Your task to perform on an android device: change the clock display to analog Image 0: 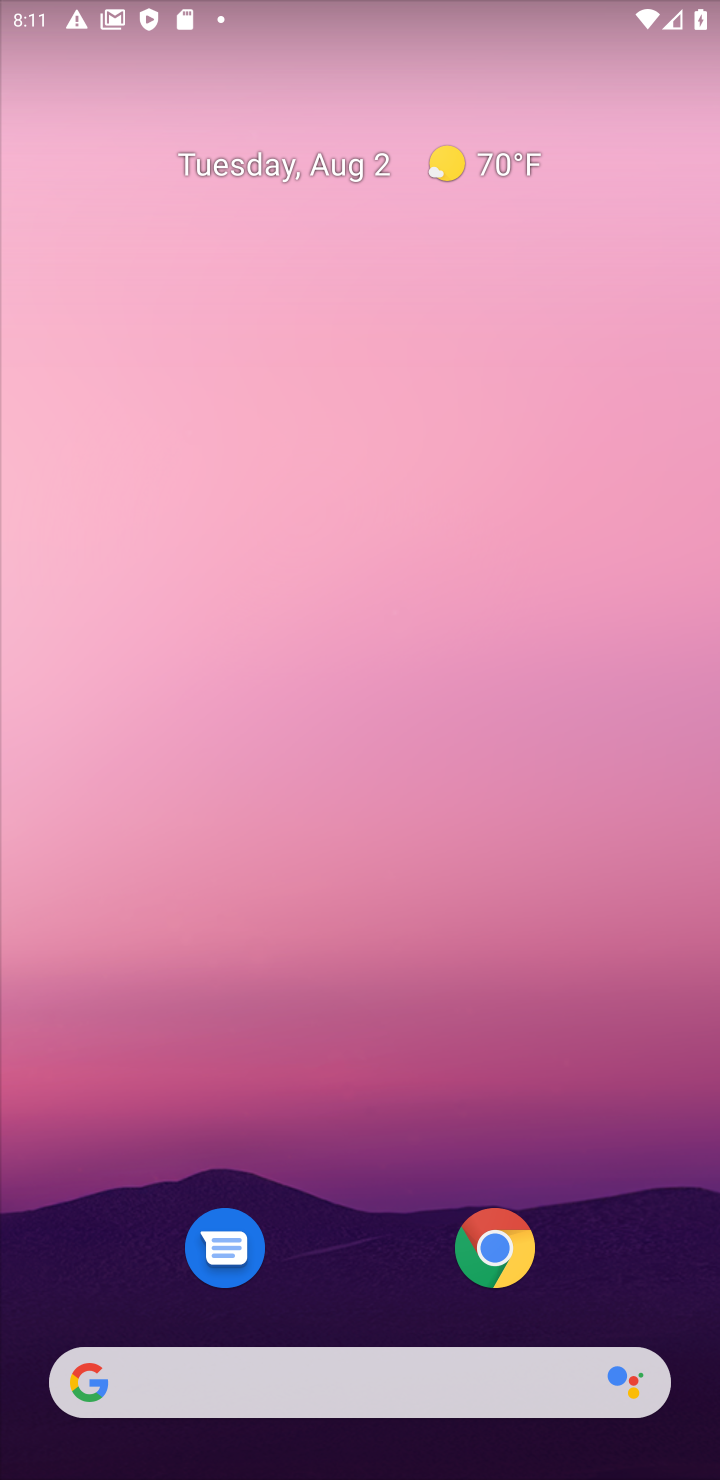
Step 0: press home button
Your task to perform on an android device: change the clock display to analog Image 1: 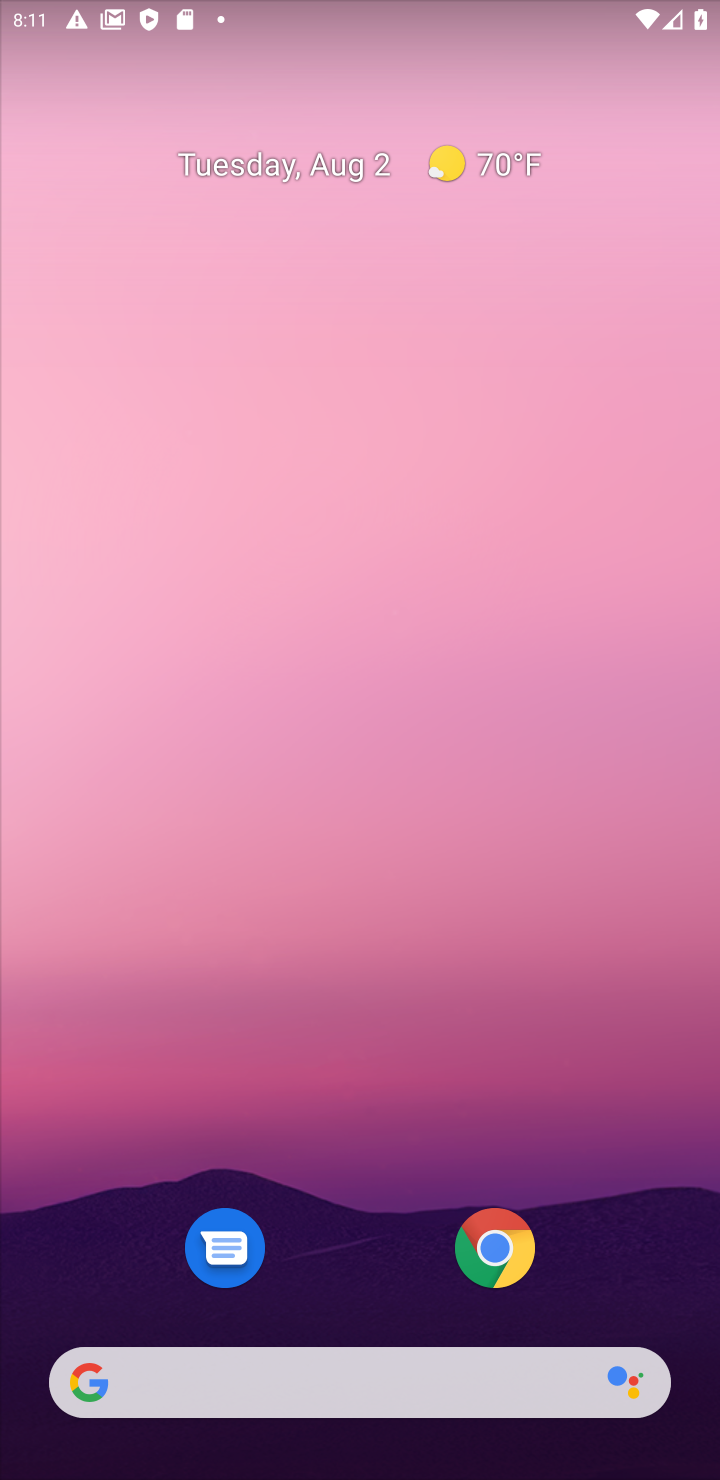
Step 1: drag from (652, 1273) to (651, 120)
Your task to perform on an android device: change the clock display to analog Image 2: 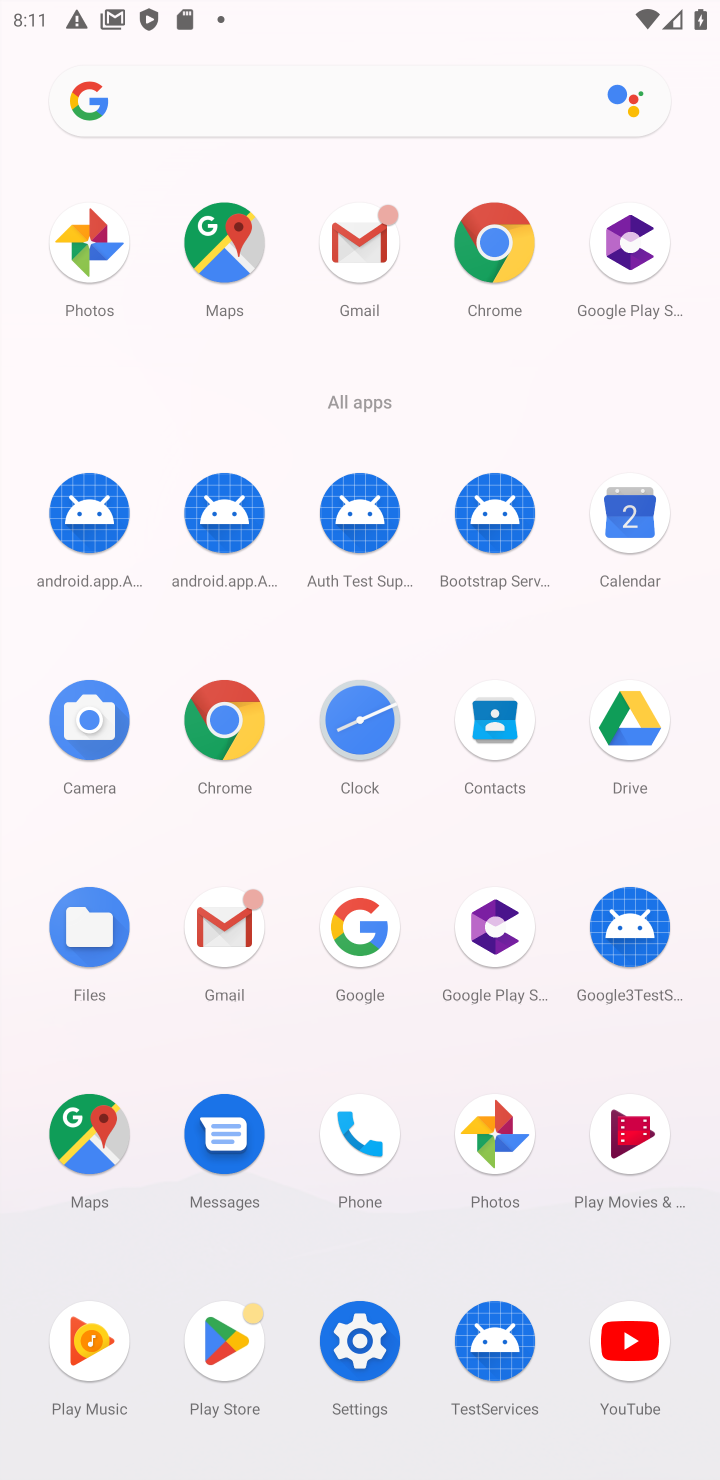
Step 2: click (373, 717)
Your task to perform on an android device: change the clock display to analog Image 3: 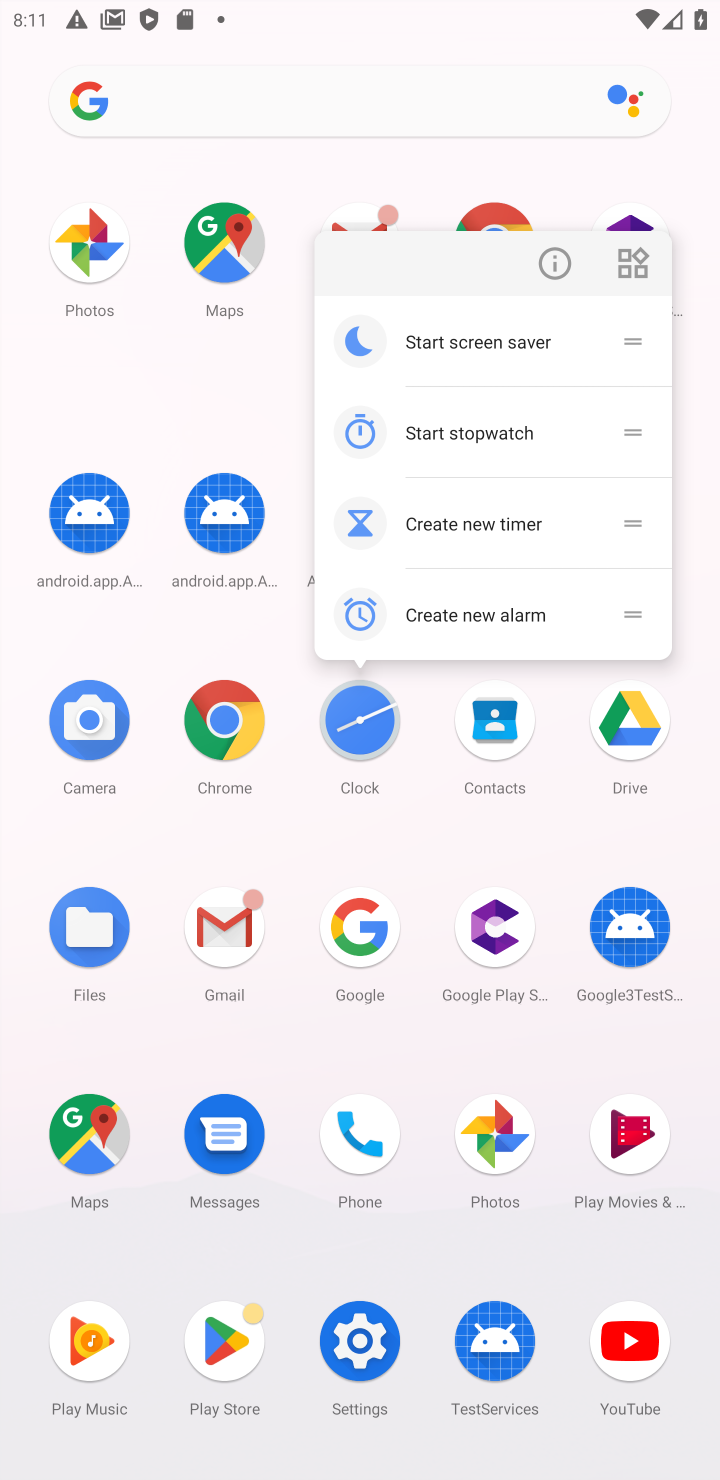
Step 3: click (342, 720)
Your task to perform on an android device: change the clock display to analog Image 4: 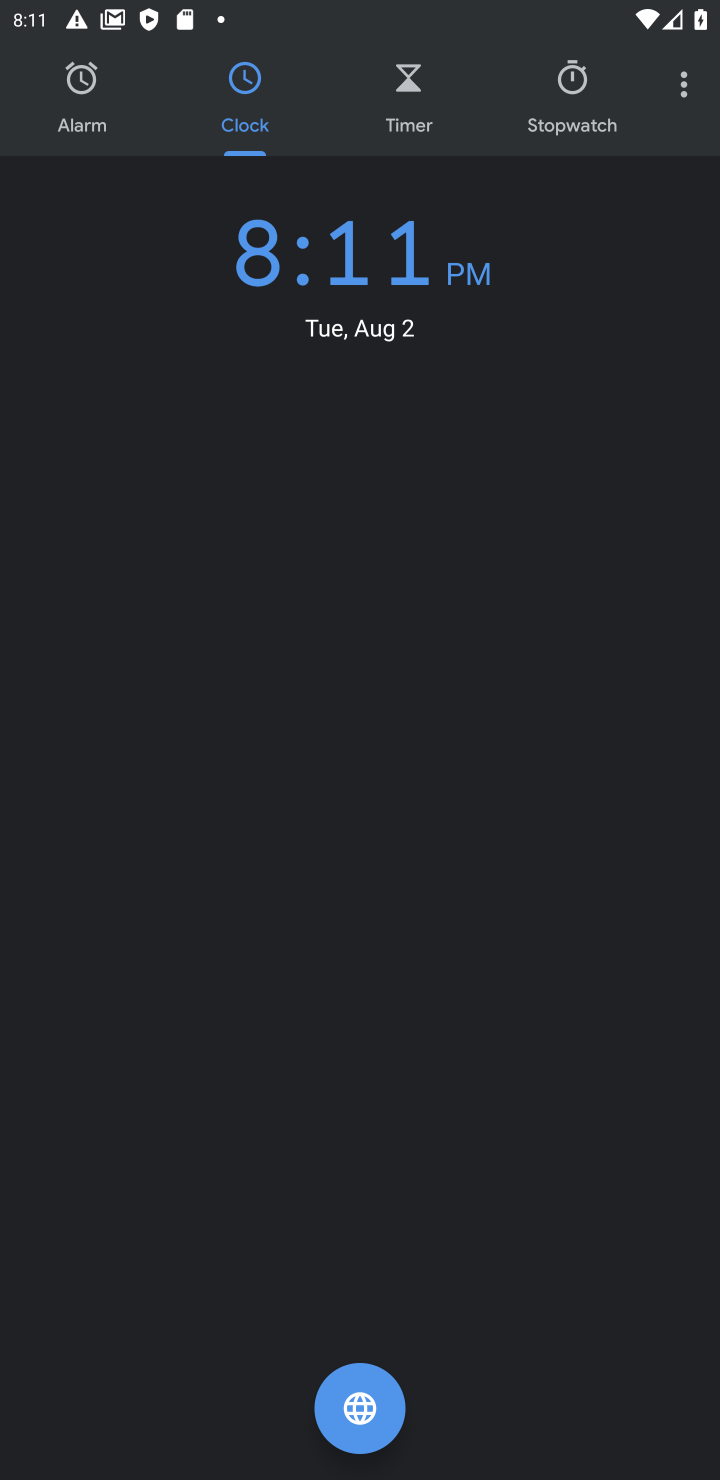
Step 4: click (687, 79)
Your task to perform on an android device: change the clock display to analog Image 5: 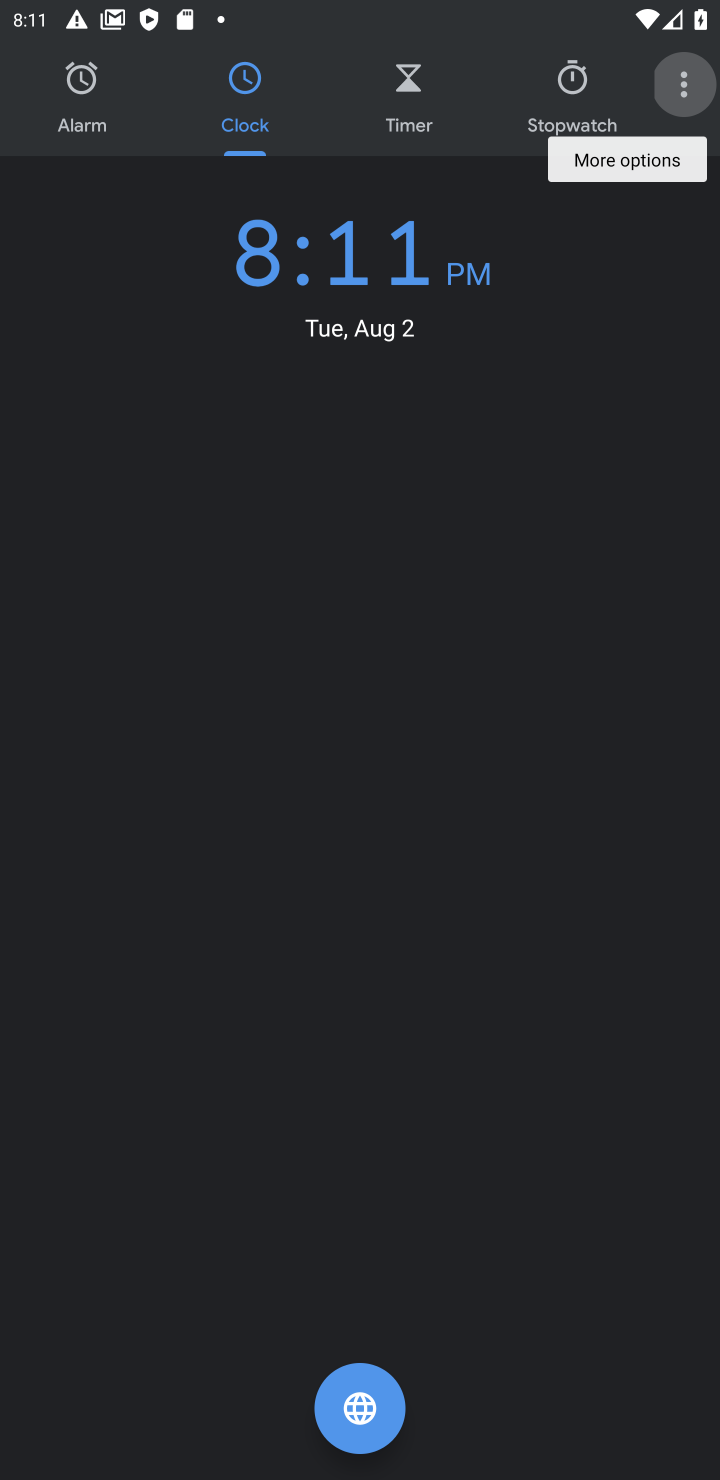
Step 5: click (687, 79)
Your task to perform on an android device: change the clock display to analog Image 6: 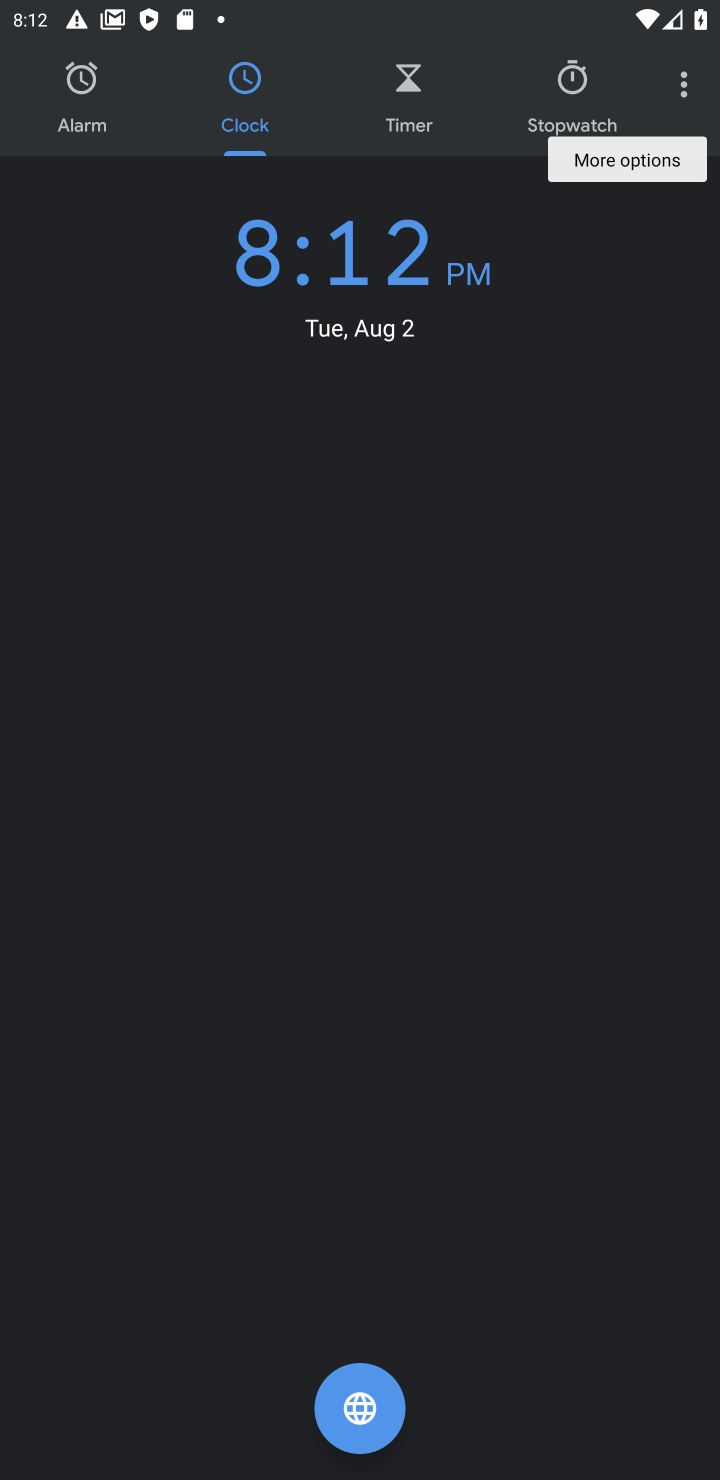
Step 6: click (687, 79)
Your task to perform on an android device: change the clock display to analog Image 7: 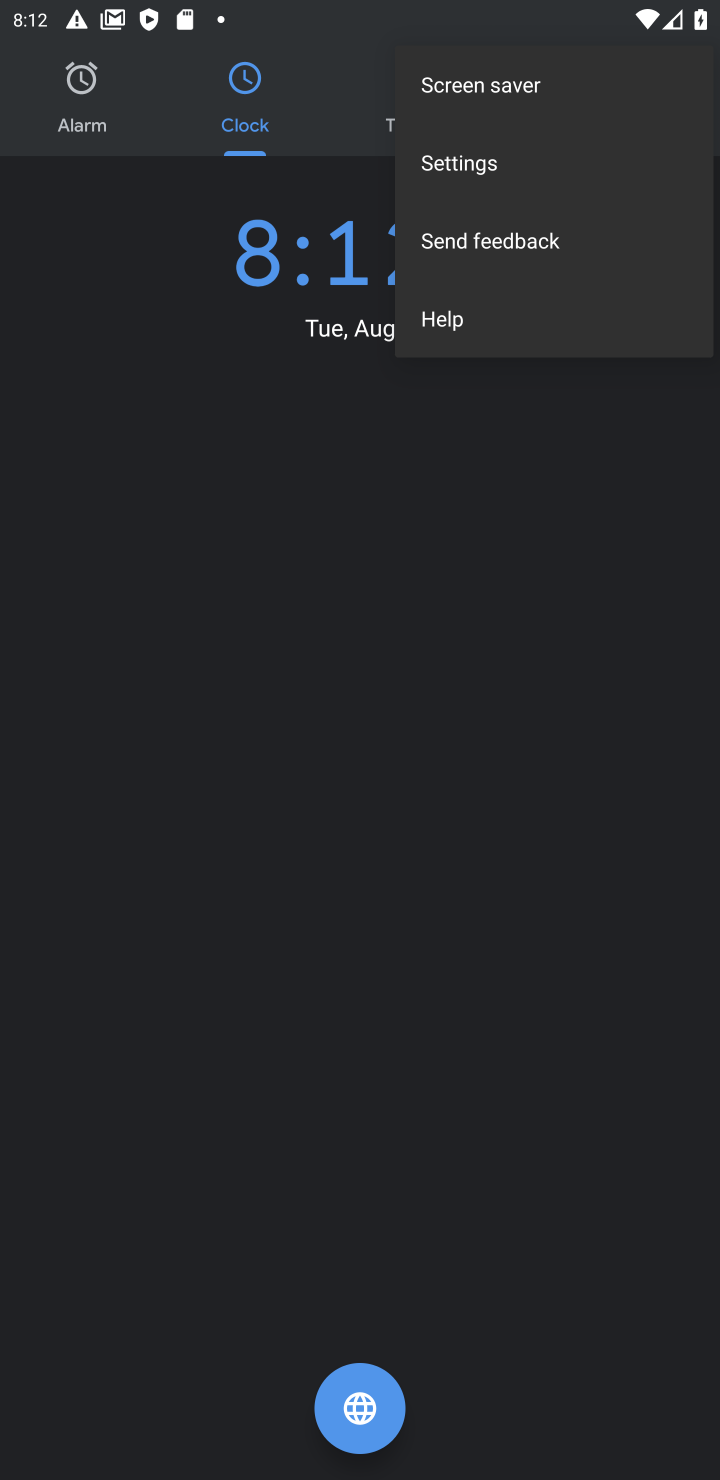
Step 7: click (486, 147)
Your task to perform on an android device: change the clock display to analog Image 8: 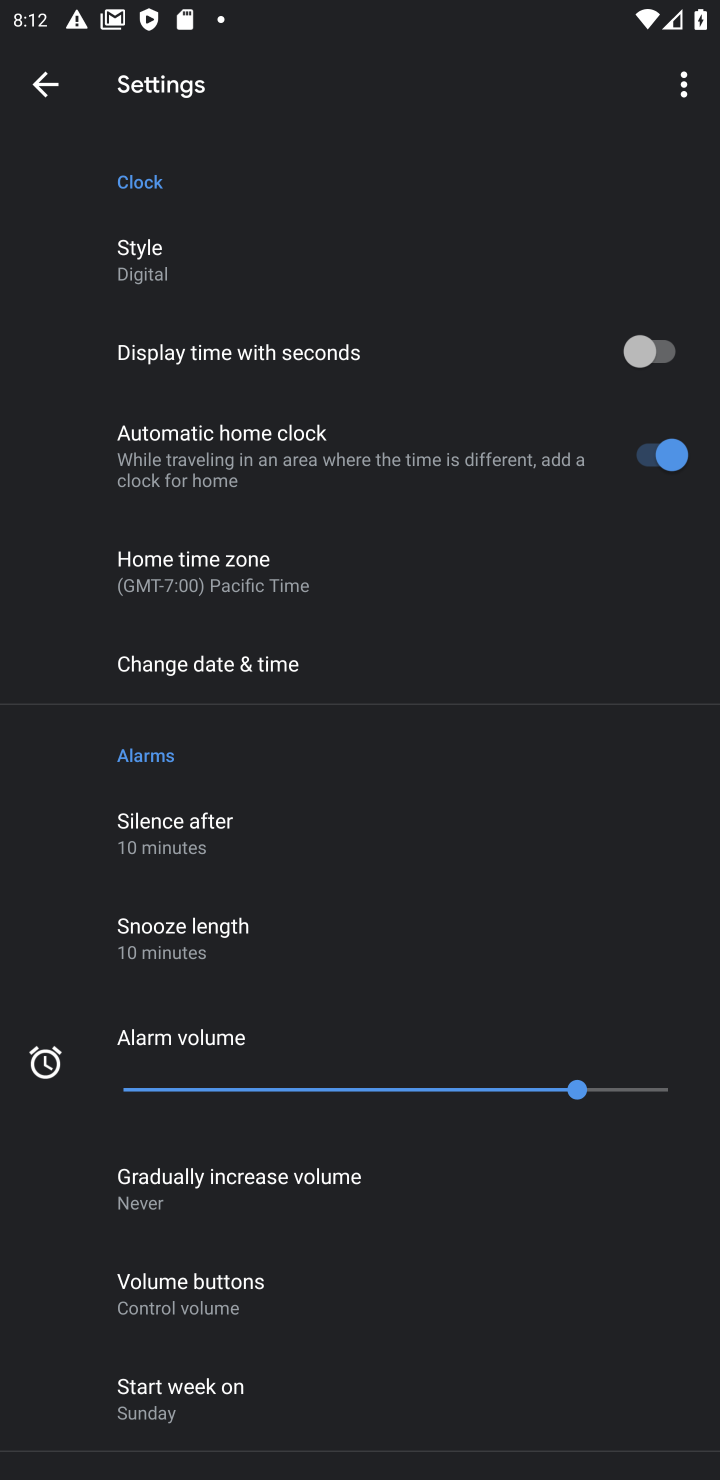
Step 8: click (135, 255)
Your task to perform on an android device: change the clock display to analog Image 9: 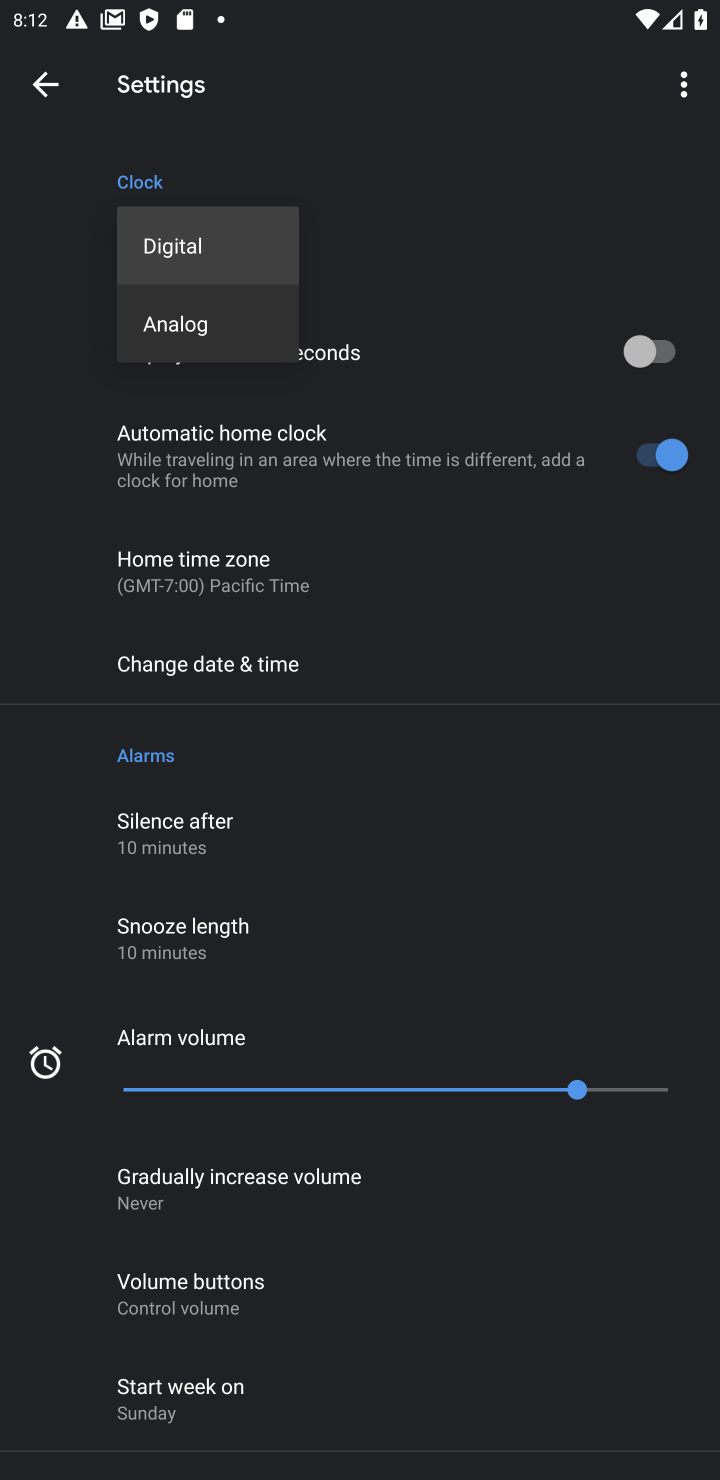
Step 9: click (192, 307)
Your task to perform on an android device: change the clock display to analog Image 10: 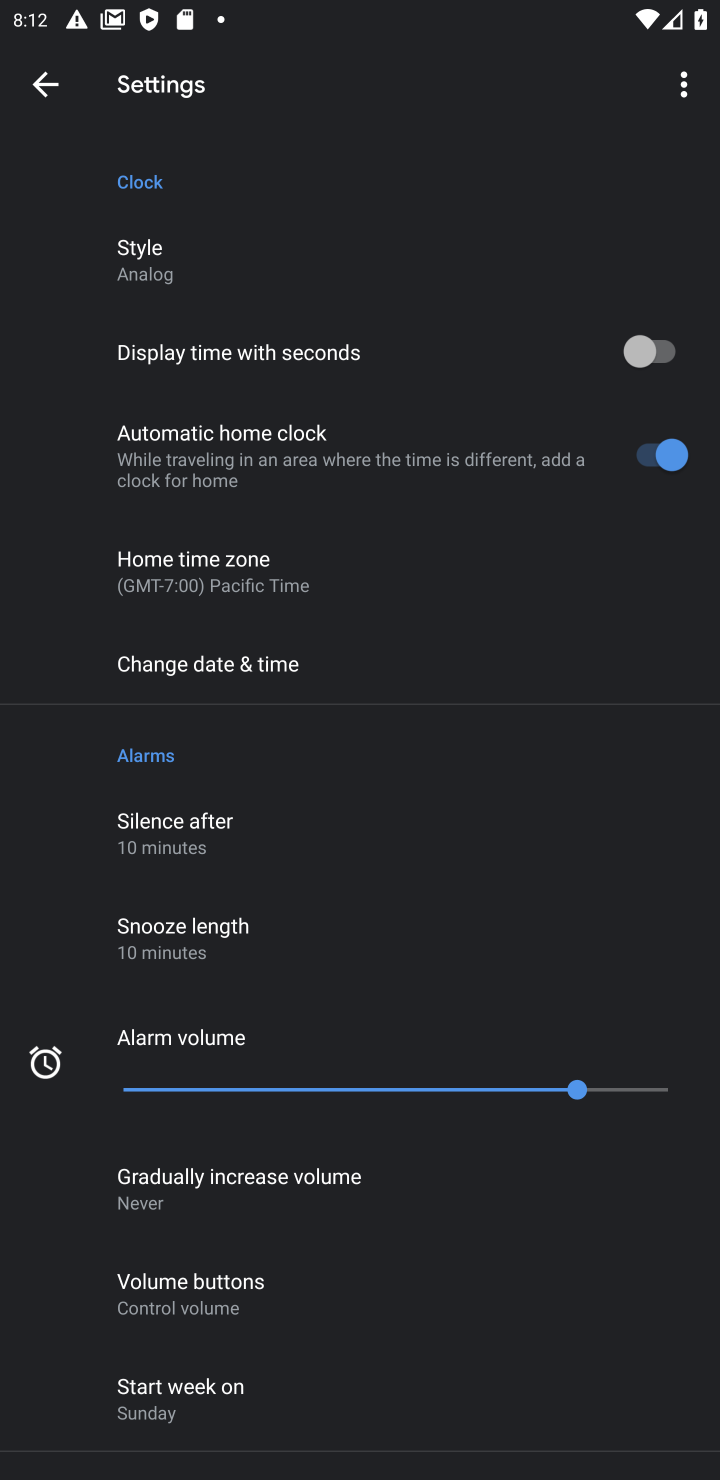
Step 10: task complete